Your task to perform on an android device: Look up the new steph curry shoes Image 0: 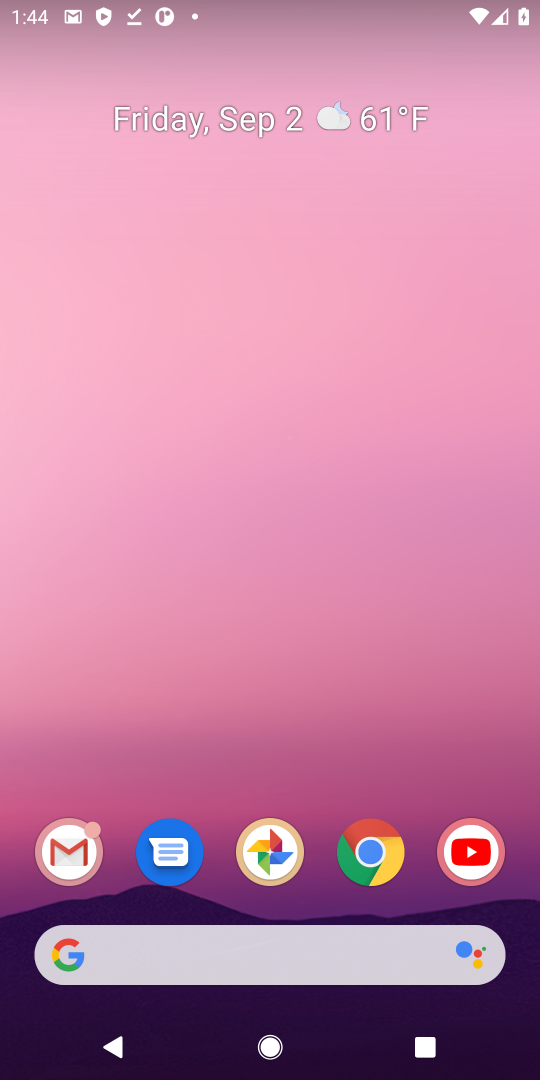
Step 0: drag from (312, 723) to (314, 98)
Your task to perform on an android device: Look up the new steph curry shoes Image 1: 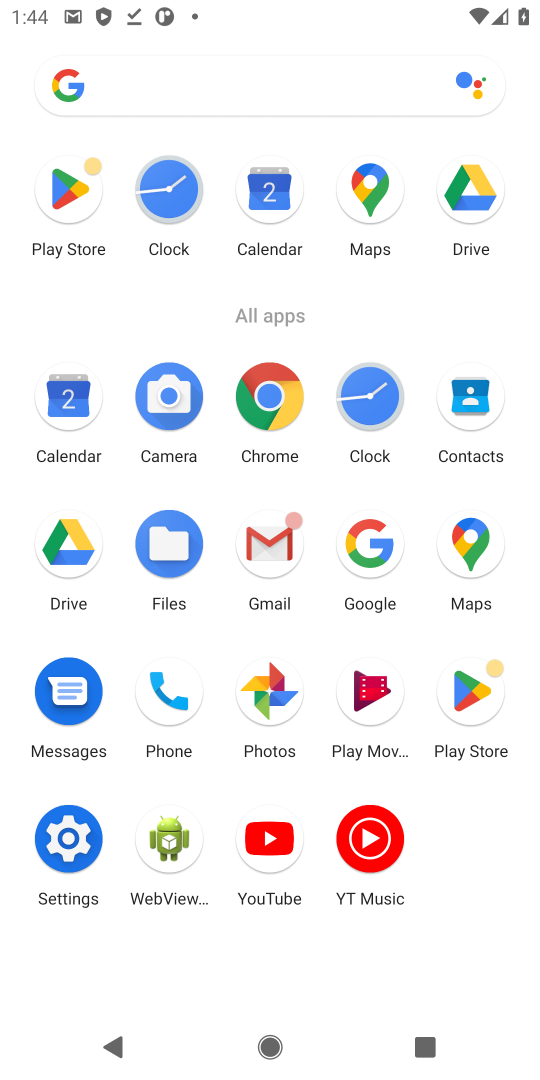
Step 1: click (269, 397)
Your task to perform on an android device: Look up the new steph curry shoes Image 2: 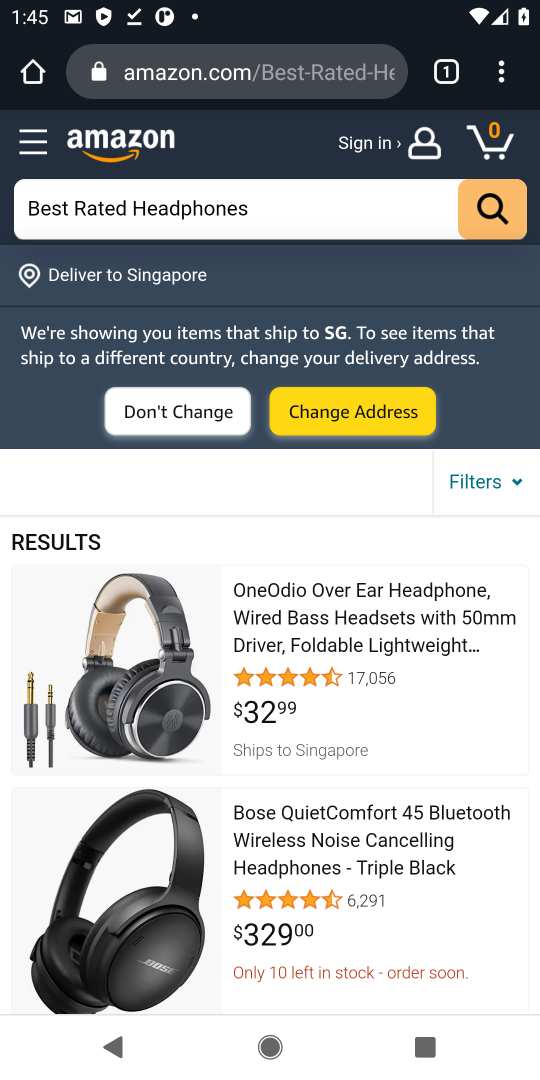
Step 2: click (193, 84)
Your task to perform on an android device: Look up the new steph curry shoes Image 3: 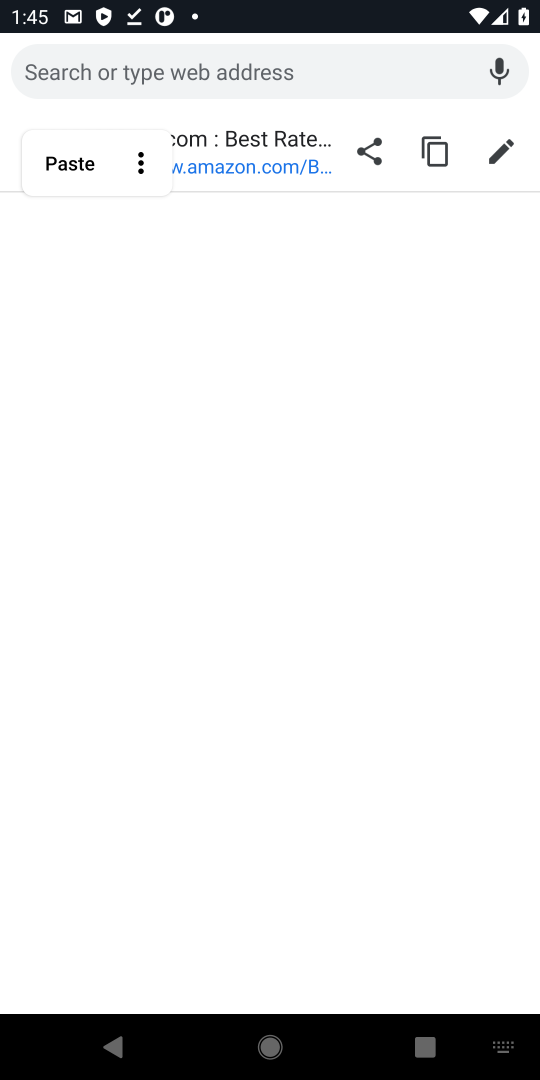
Step 3: type "Look up the new steph curry shoes"
Your task to perform on an android device: Look up the new steph curry shoes Image 4: 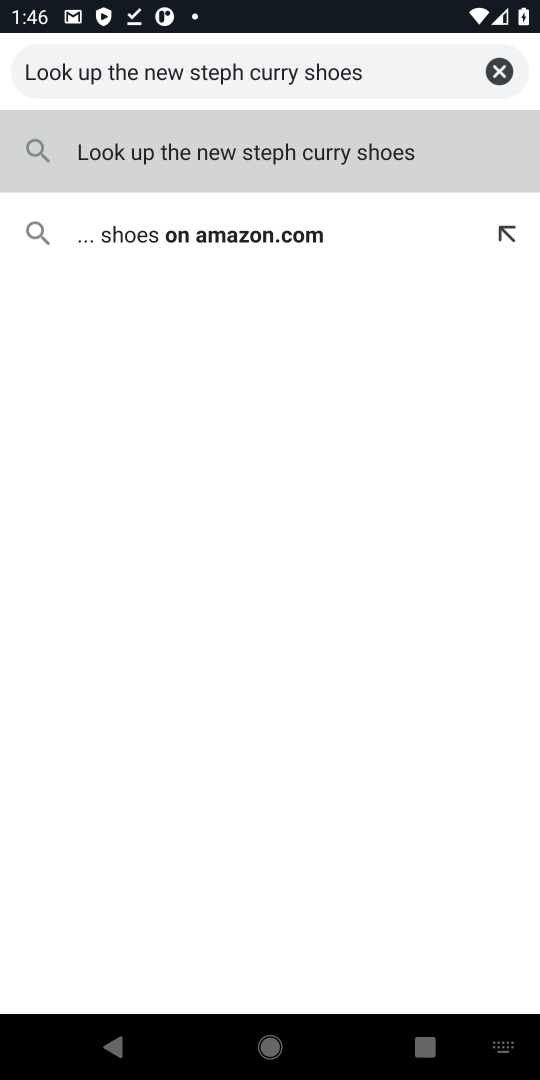
Step 4: press enter
Your task to perform on an android device: Look up the new steph curry shoes Image 5: 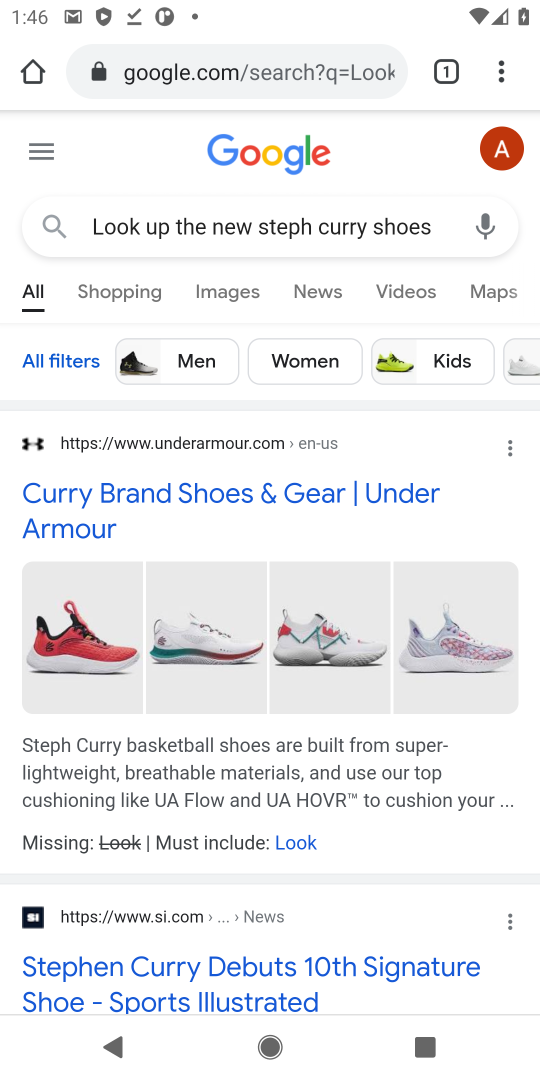
Step 5: drag from (346, 804) to (366, 357)
Your task to perform on an android device: Look up the new steph curry shoes Image 6: 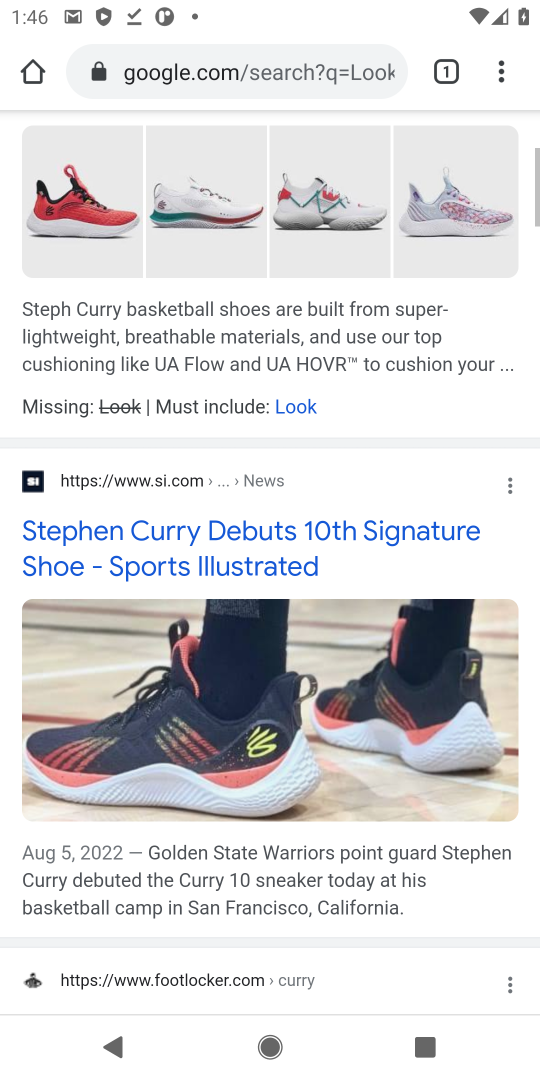
Step 6: click (215, 547)
Your task to perform on an android device: Look up the new steph curry shoes Image 7: 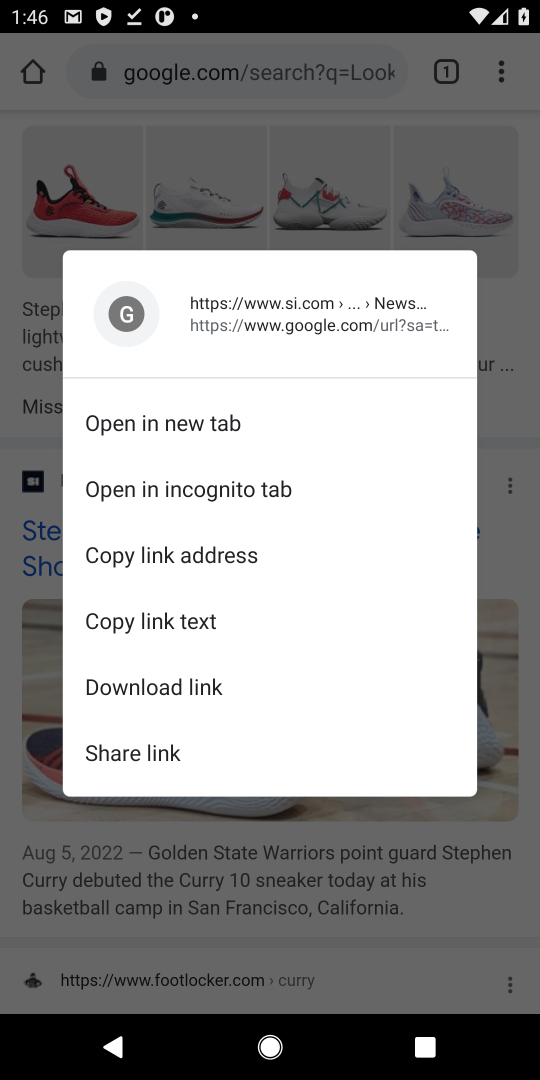
Step 7: click (471, 157)
Your task to perform on an android device: Look up the new steph curry shoes Image 8: 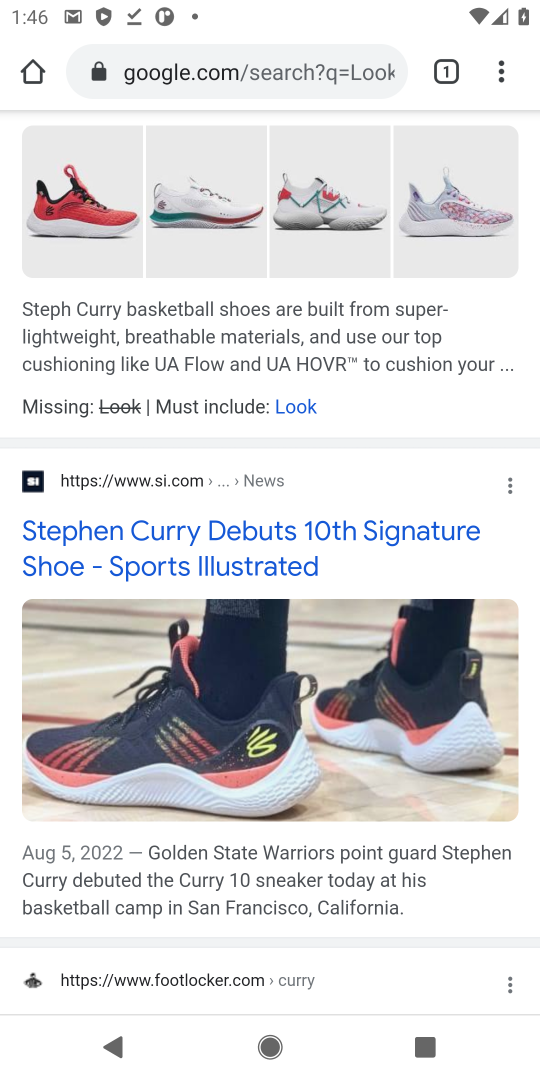
Step 8: click (201, 545)
Your task to perform on an android device: Look up the new steph curry shoes Image 9: 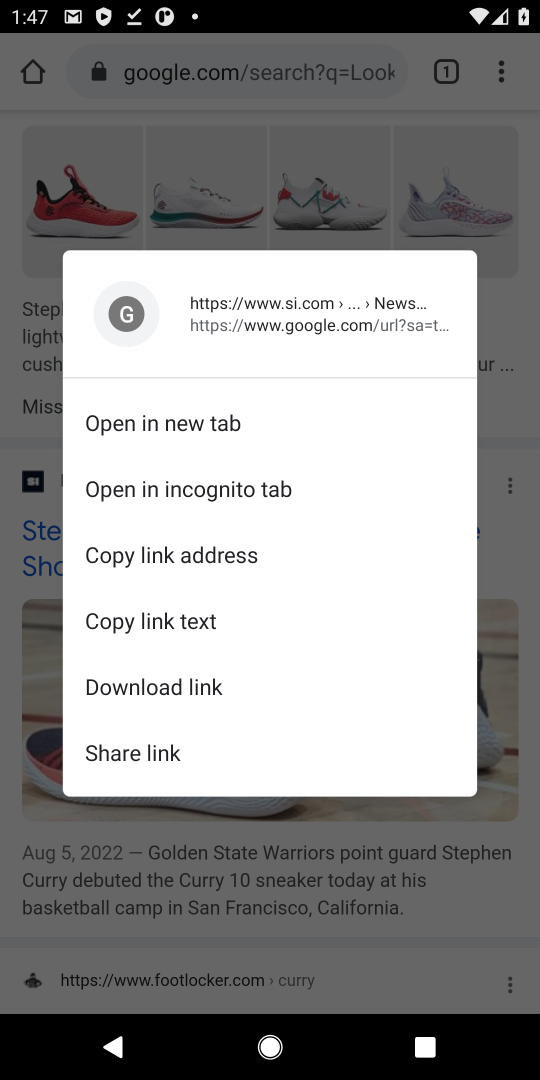
Step 9: click (181, 422)
Your task to perform on an android device: Look up the new steph curry shoes Image 10: 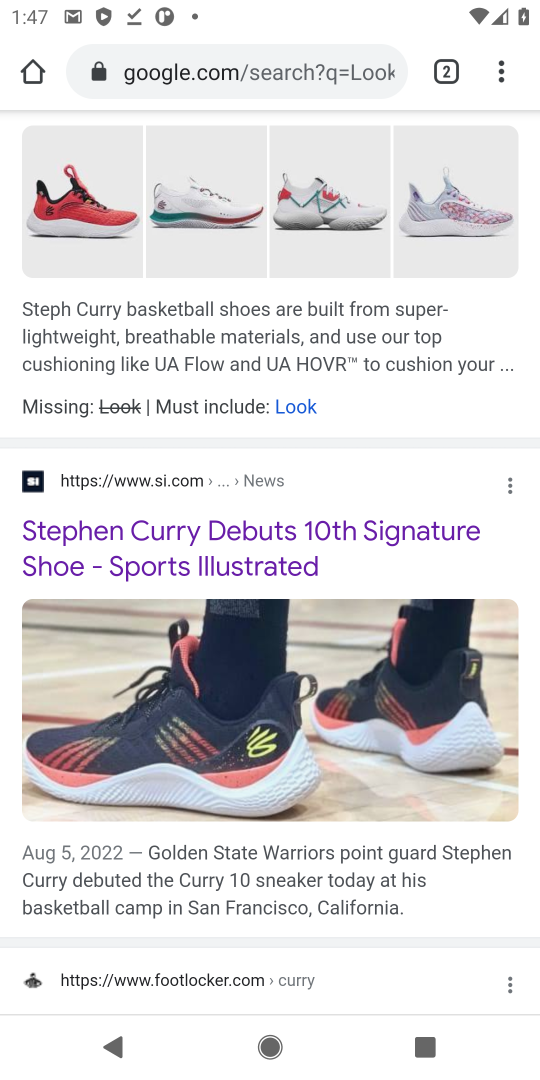
Step 10: click (232, 548)
Your task to perform on an android device: Look up the new steph curry shoes Image 11: 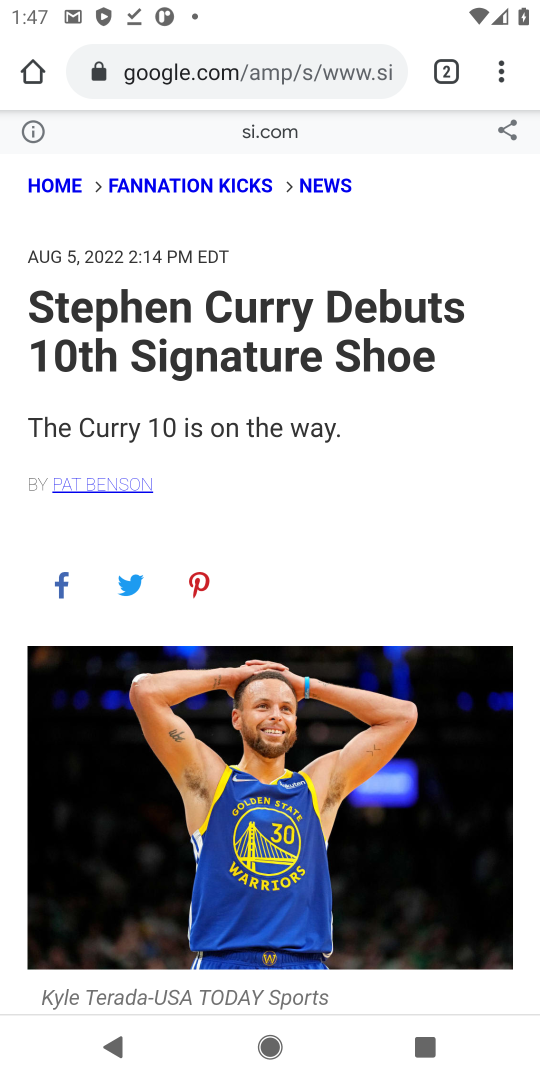
Step 11: task complete